Your task to perform on an android device: Clear the cart on walmart.com. Add "macbook pro" to the cart on walmart.com, then select checkout. Image 0: 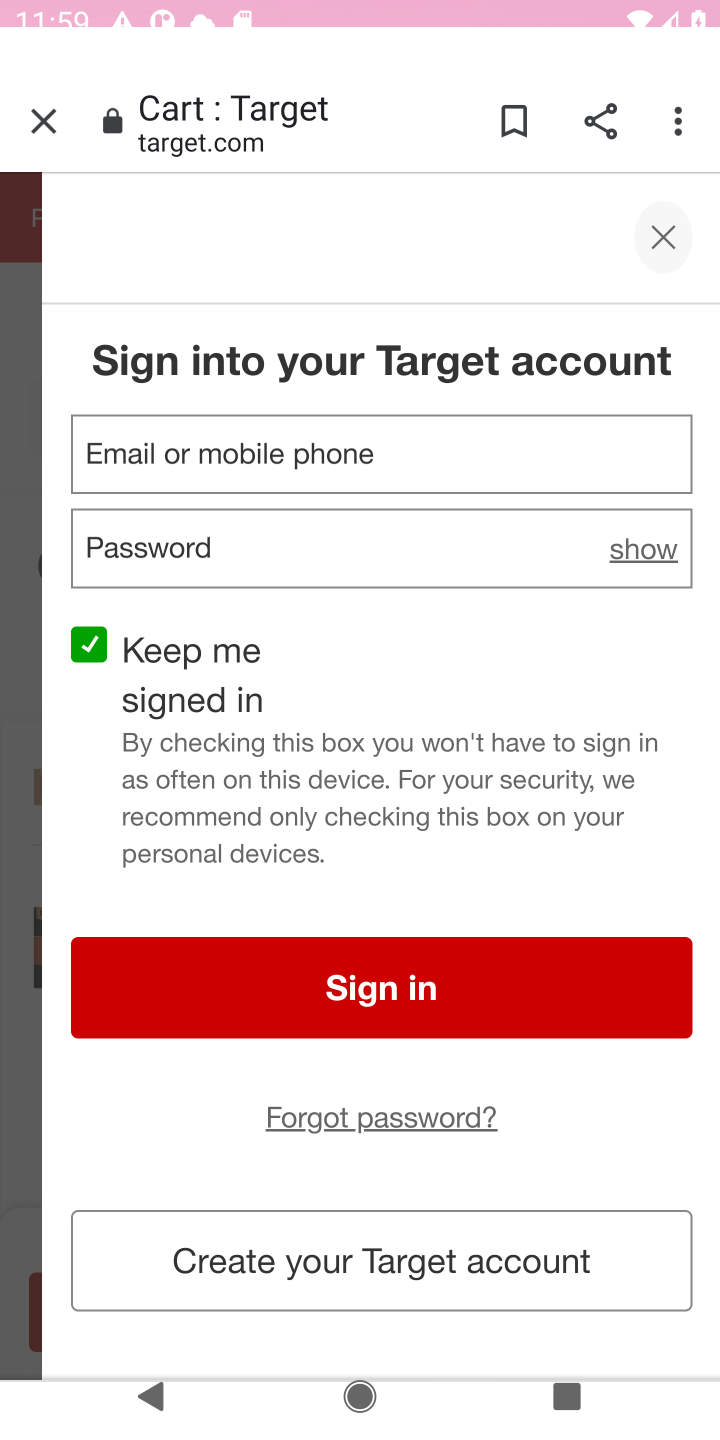
Step 0: press home button
Your task to perform on an android device: Clear the cart on walmart.com. Add "macbook pro" to the cart on walmart.com, then select checkout. Image 1: 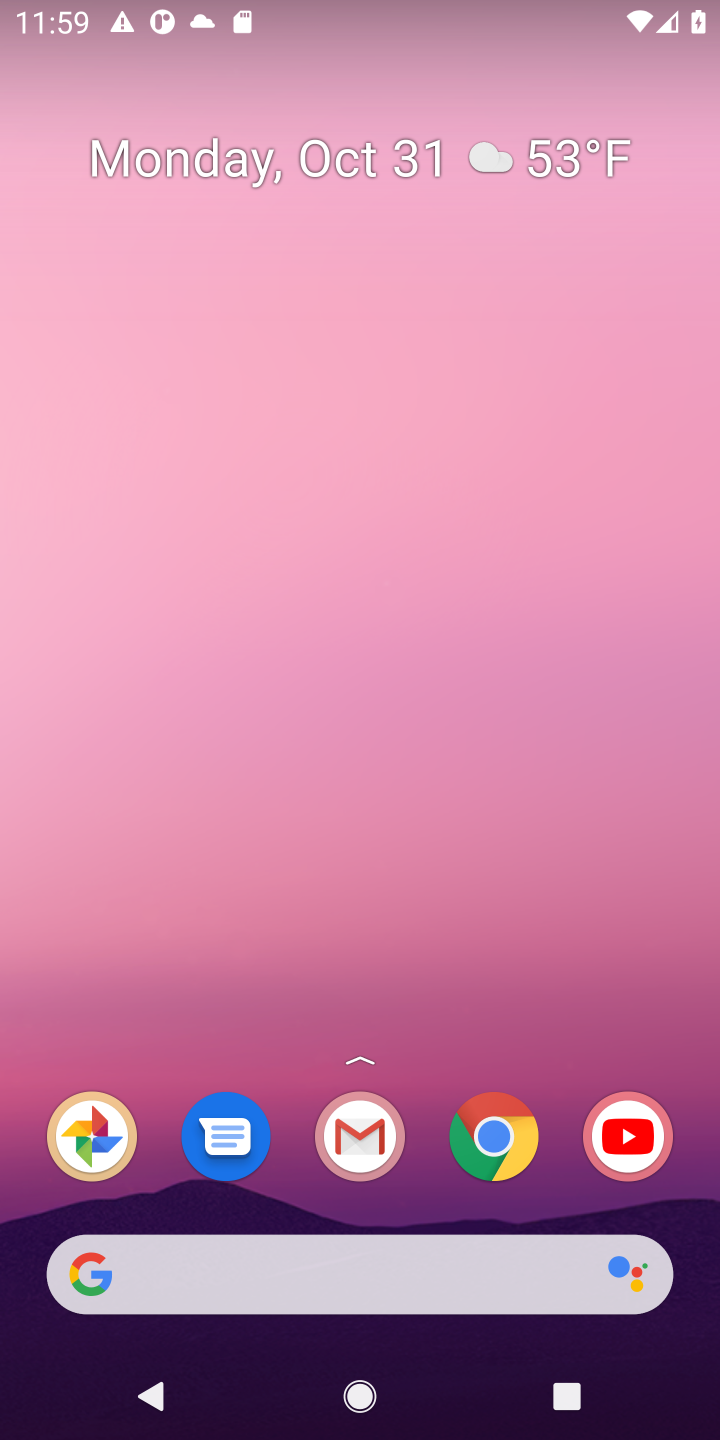
Step 1: press home button
Your task to perform on an android device: Clear the cart on walmart.com. Add "macbook pro" to the cart on walmart.com, then select checkout. Image 2: 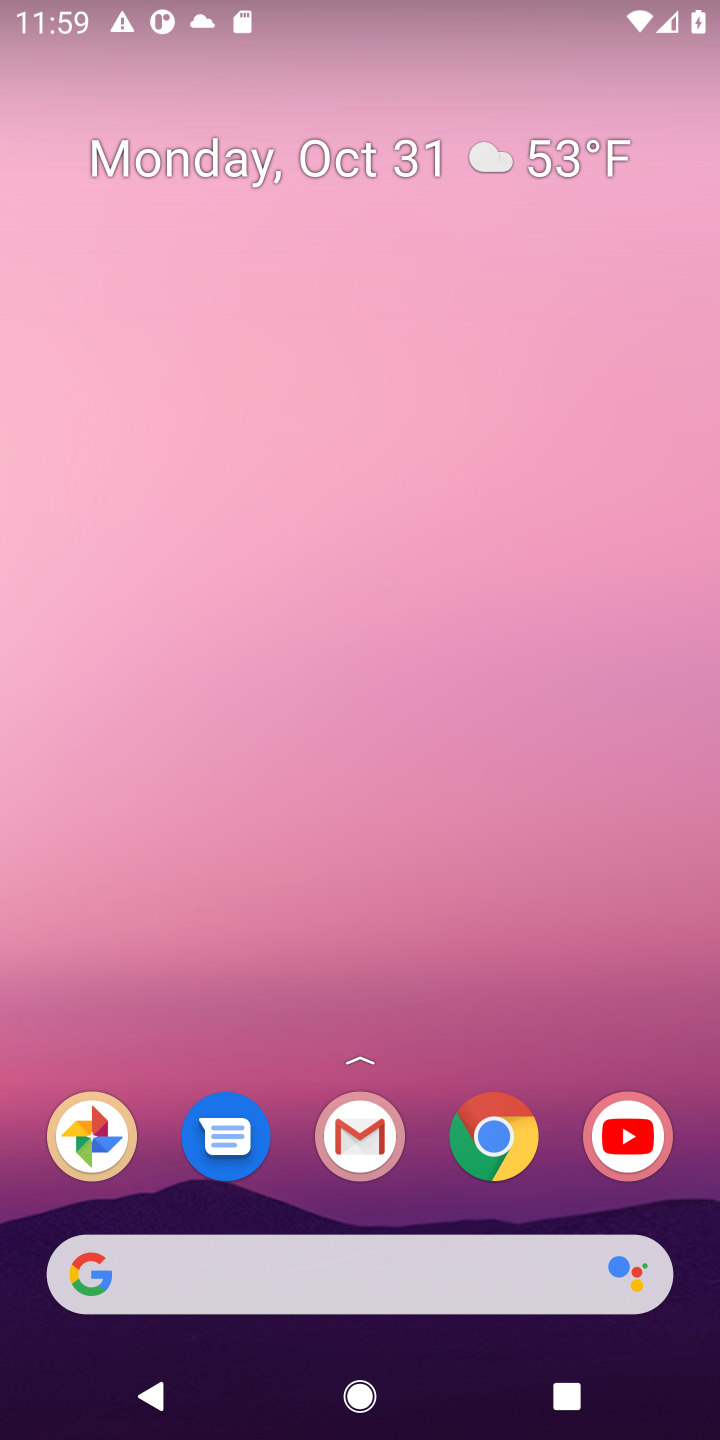
Step 2: click (202, 1268)
Your task to perform on an android device: Clear the cart on walmart.com. Add "macbook pro" to the cart on walmart.com, then select checkout. Image 3: 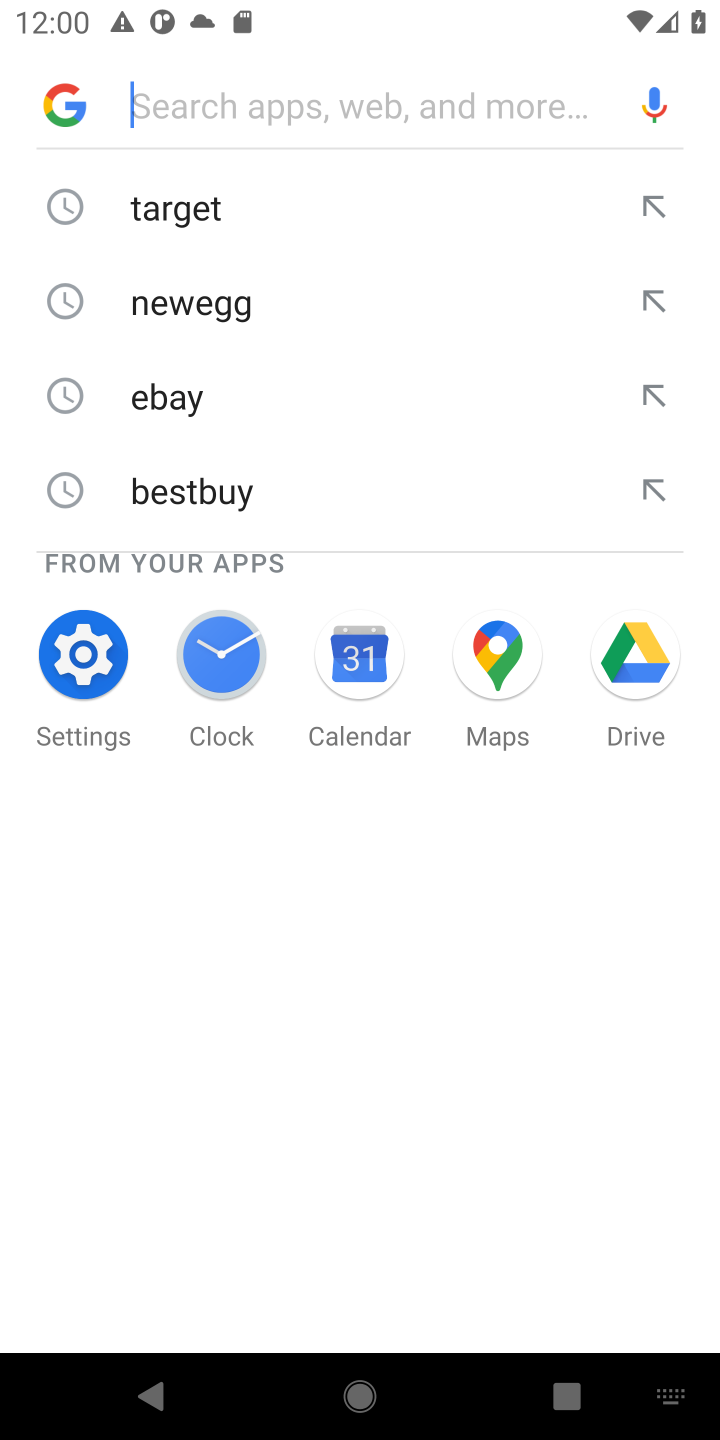
Step 3: type "walmart.com"
Your task to perform on an android device: Clear the cart on walmart.com. Add "macbook pro" to the cart on walmart.com, then select checkout. Image 4: 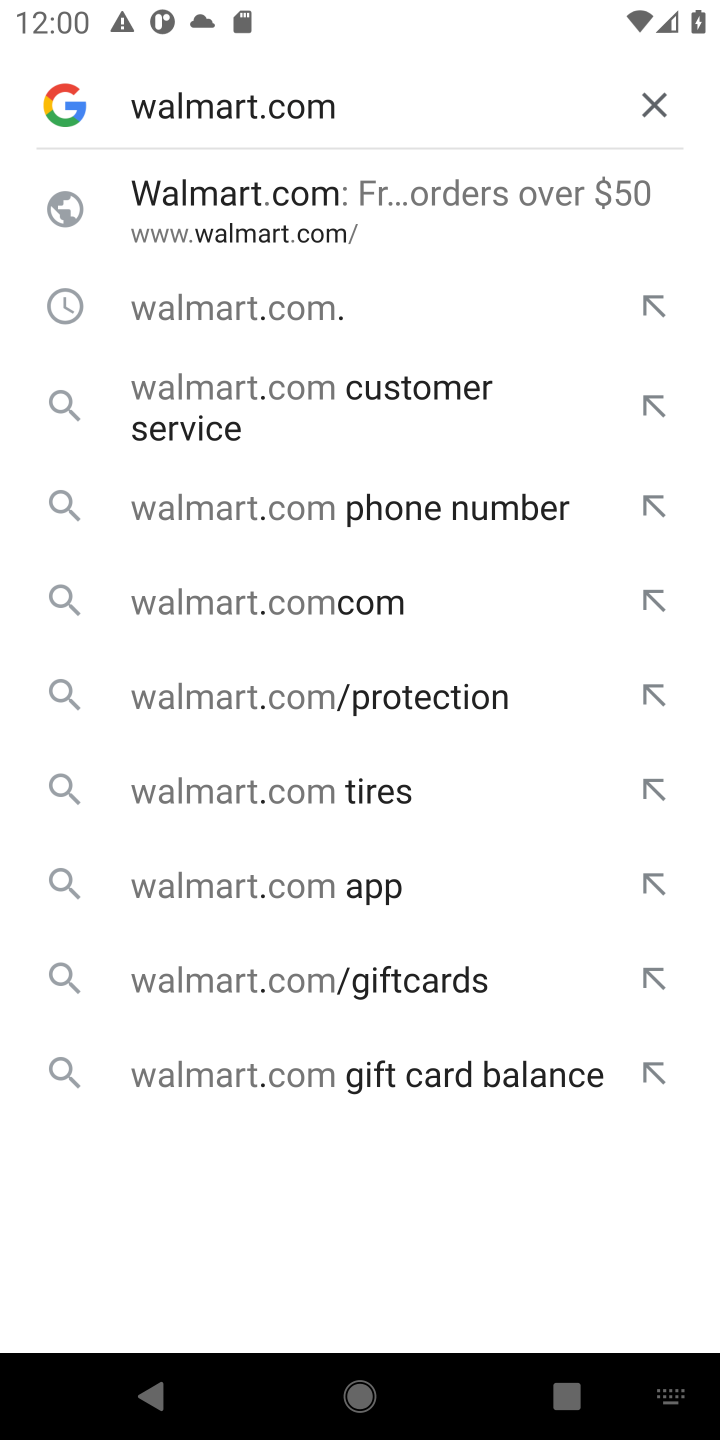
Step 4: press enter
Your task to perform on an android device: Clear the cart on walmart.com. Add "macbook pro" to the cart on walmart.com, then select checkout. Image 5: 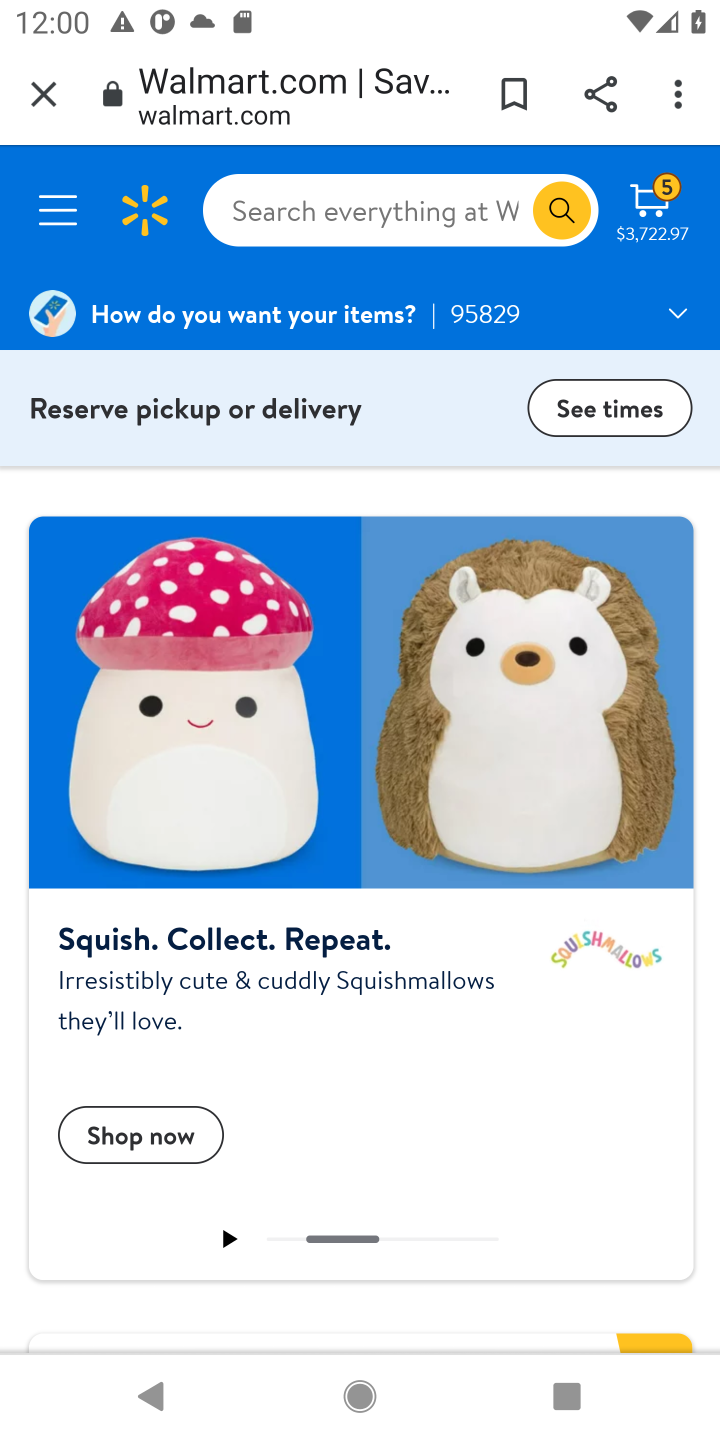
Step 5: click (644, 189)
Your task to perform on an android device: Clear the cart on walmart.com. Add "macbook pro" to the cart on walmart.com, then select checkout. Image 6: 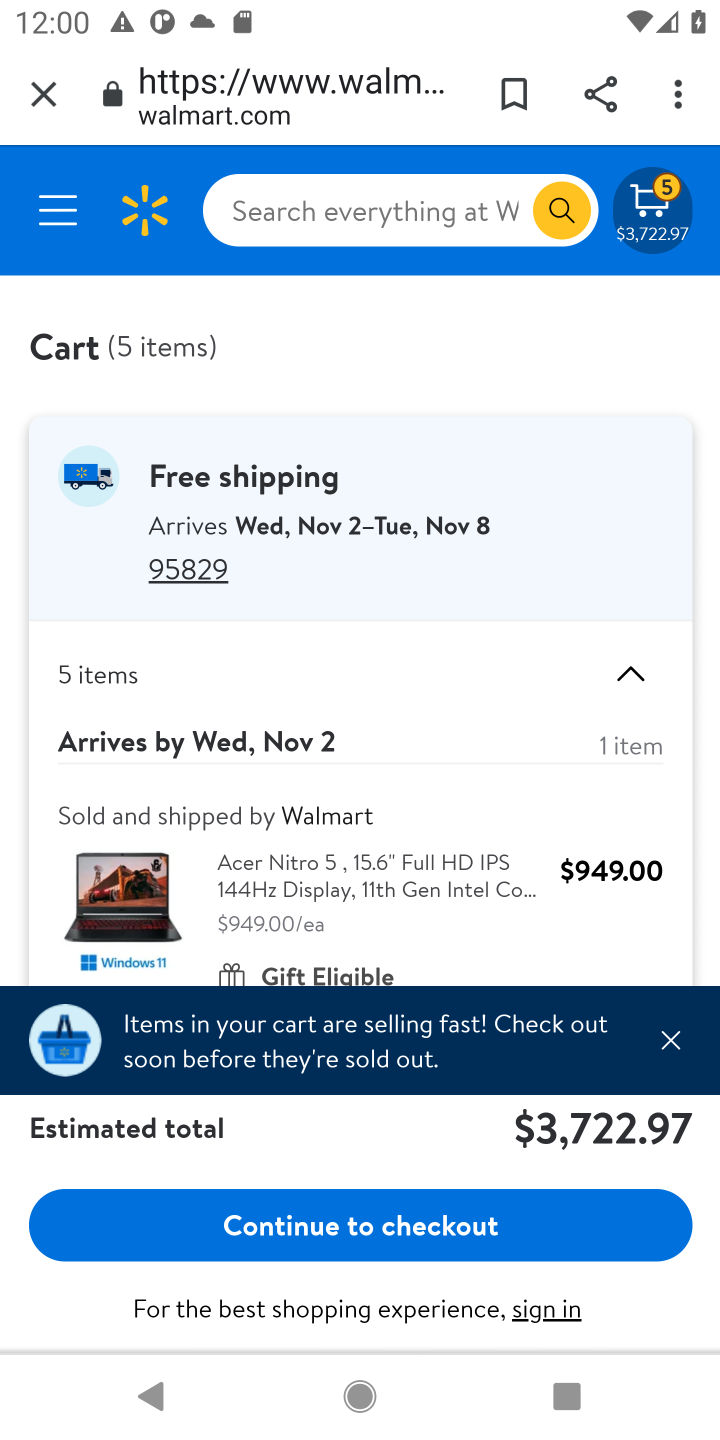
Step 6: click (668, 1046)
Your task to perform on an android device: Clear the cart on walmart.com. Add "macbook pro" to the cart on walmart.com, then select checkout. Image 7: 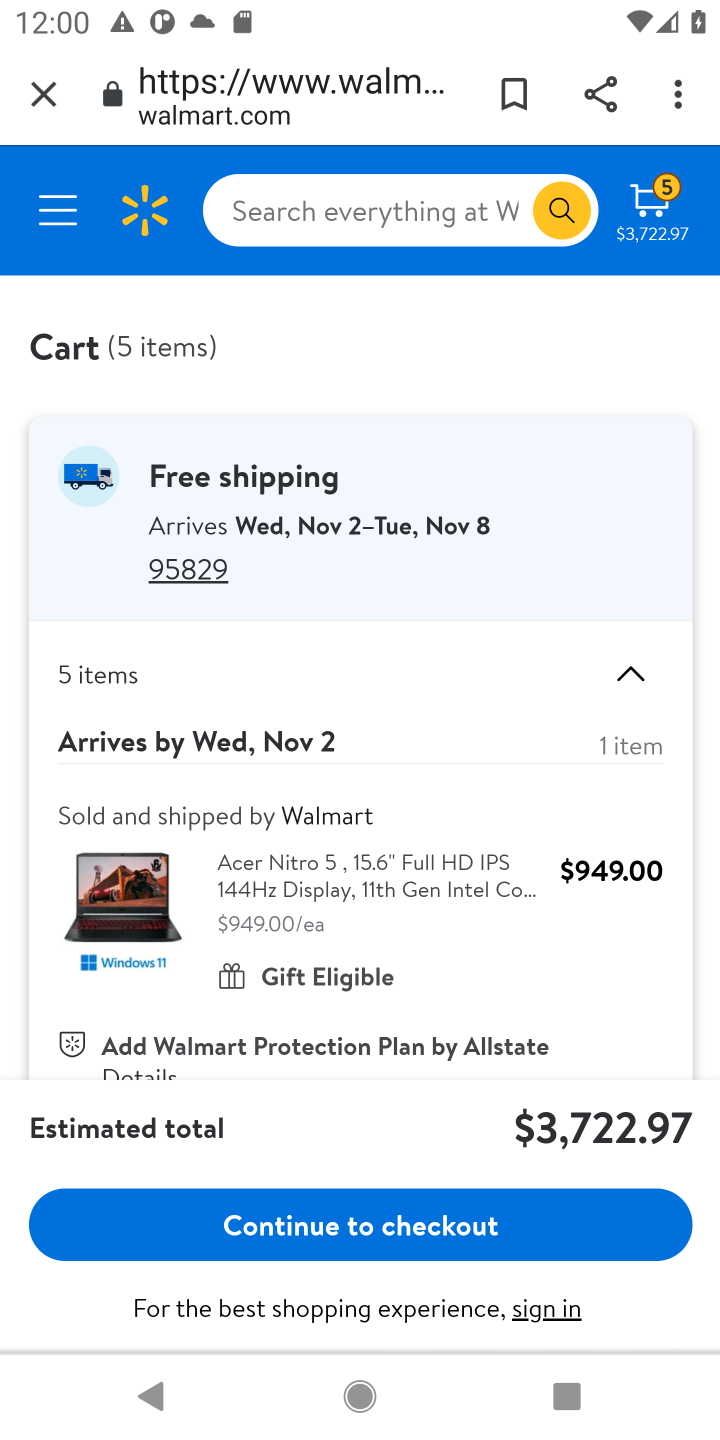
Step 7: drag from (277, 862) to (290, 537)
Your task to perform on an android device: Clear the cart on walmart.com. Add "macbook pro" to the cart on walmart.com, then select checkout. Image 8: 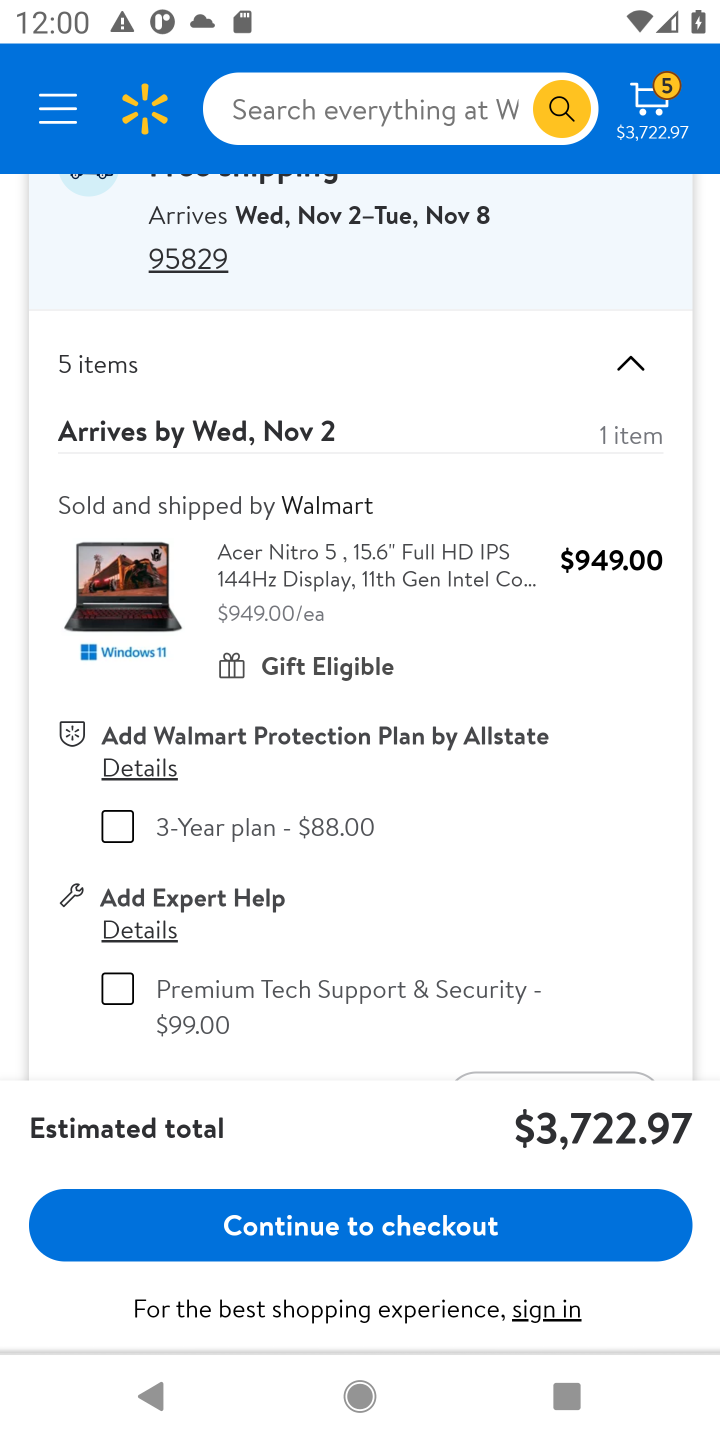
Step 8: drag from (302, 952) to (302, 531)
Your task to perform on an android device: Clear the cart on walmart.com. Add "macbook pro" to the cart on walmart.com, then select checkout. Image 9: 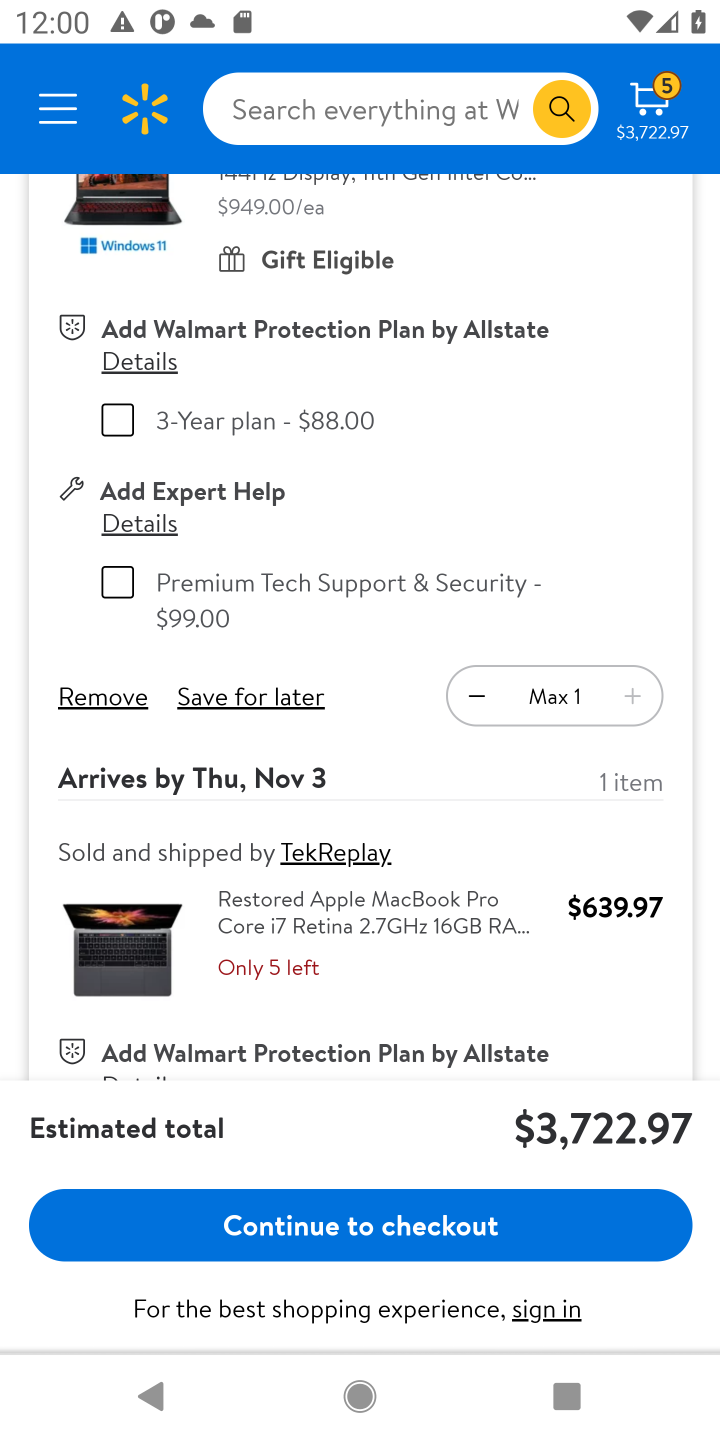
Step 9: click (83, 955)
Your task to perform on an android device: Clear the cart on walmart.com. Add "macbook pro" to the cart on walmart.com, then select checkout. Image 10: 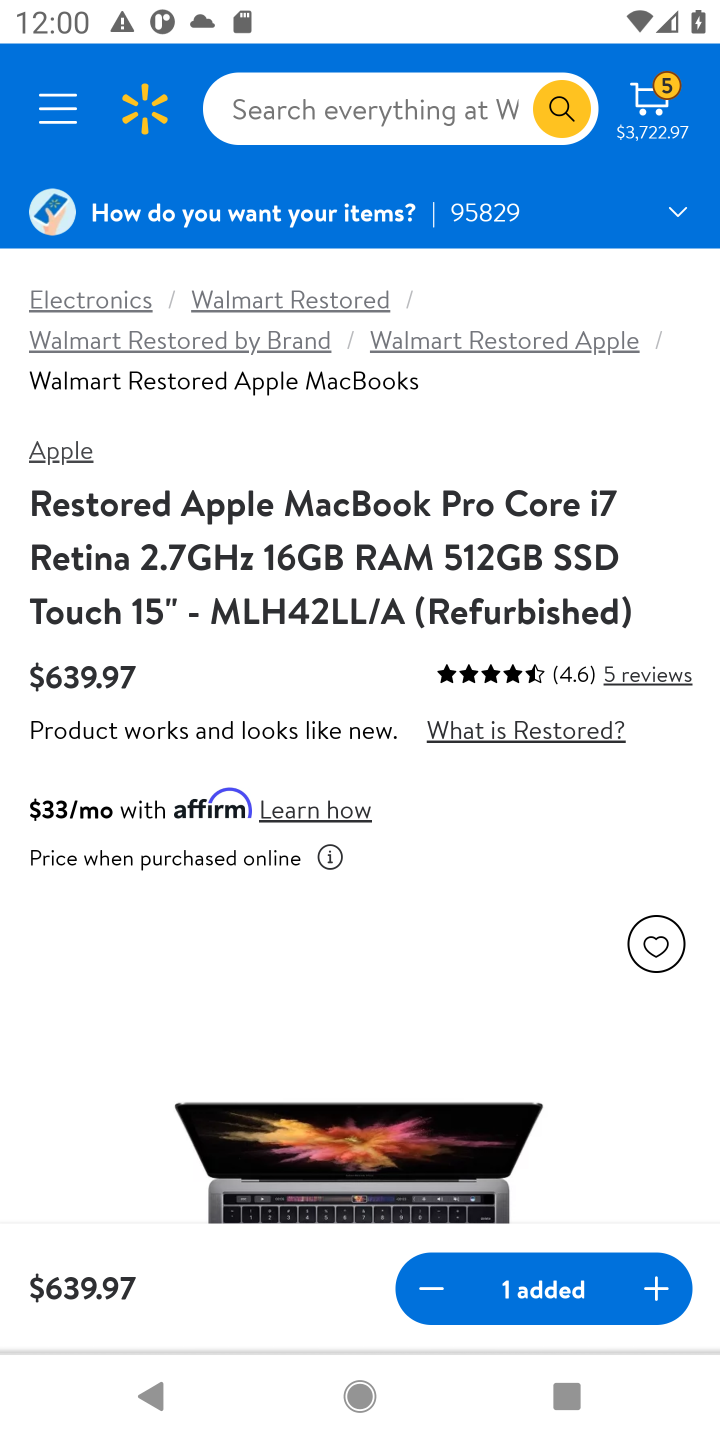
Step 10: press back button
Your task to perform on an android device: Clear the cart on walmart.com. Add "macbook pro" to the cart on walmart.com, then select checkout. Image 11: 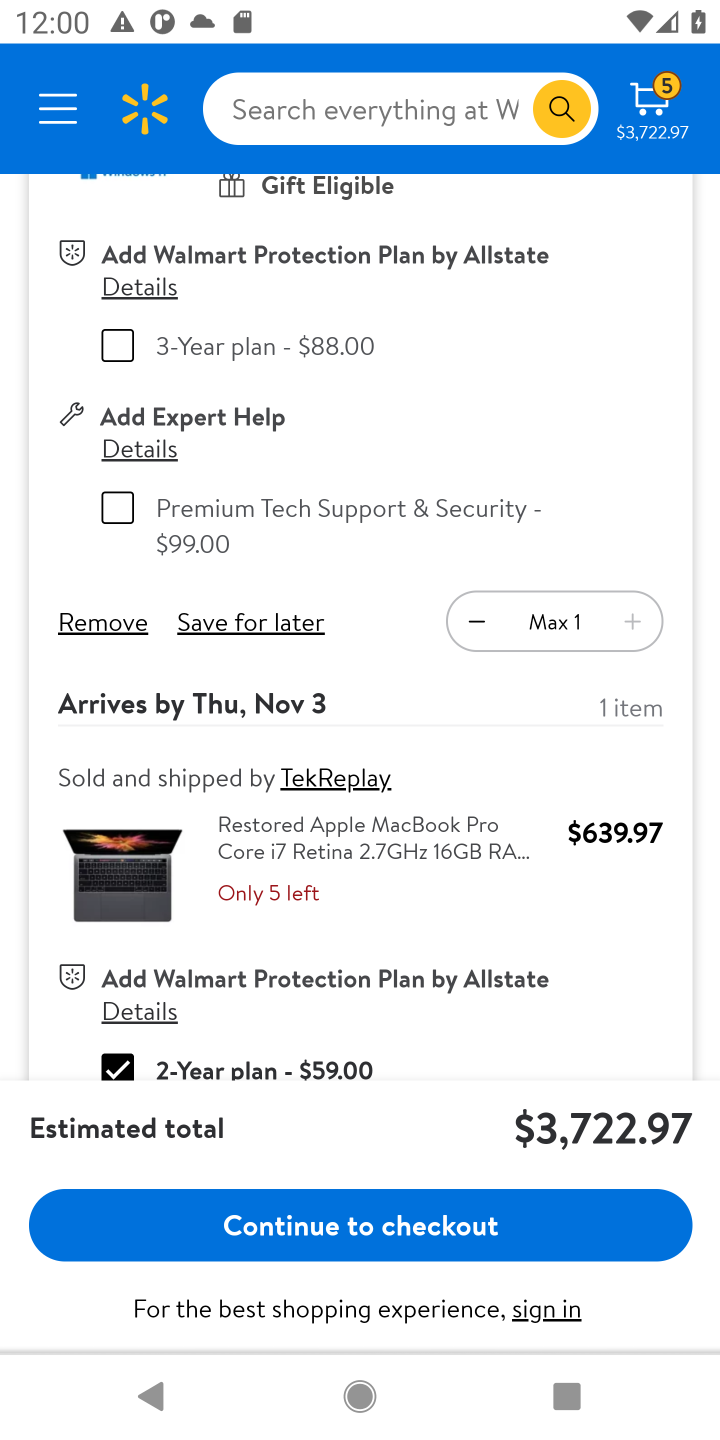
Step 11: click (88, 626)
Your task to perform on an android device: Clear the cart on walmart.com. Add "macbook pro" to the cart on walmart.com, then select checkout. Image 12: 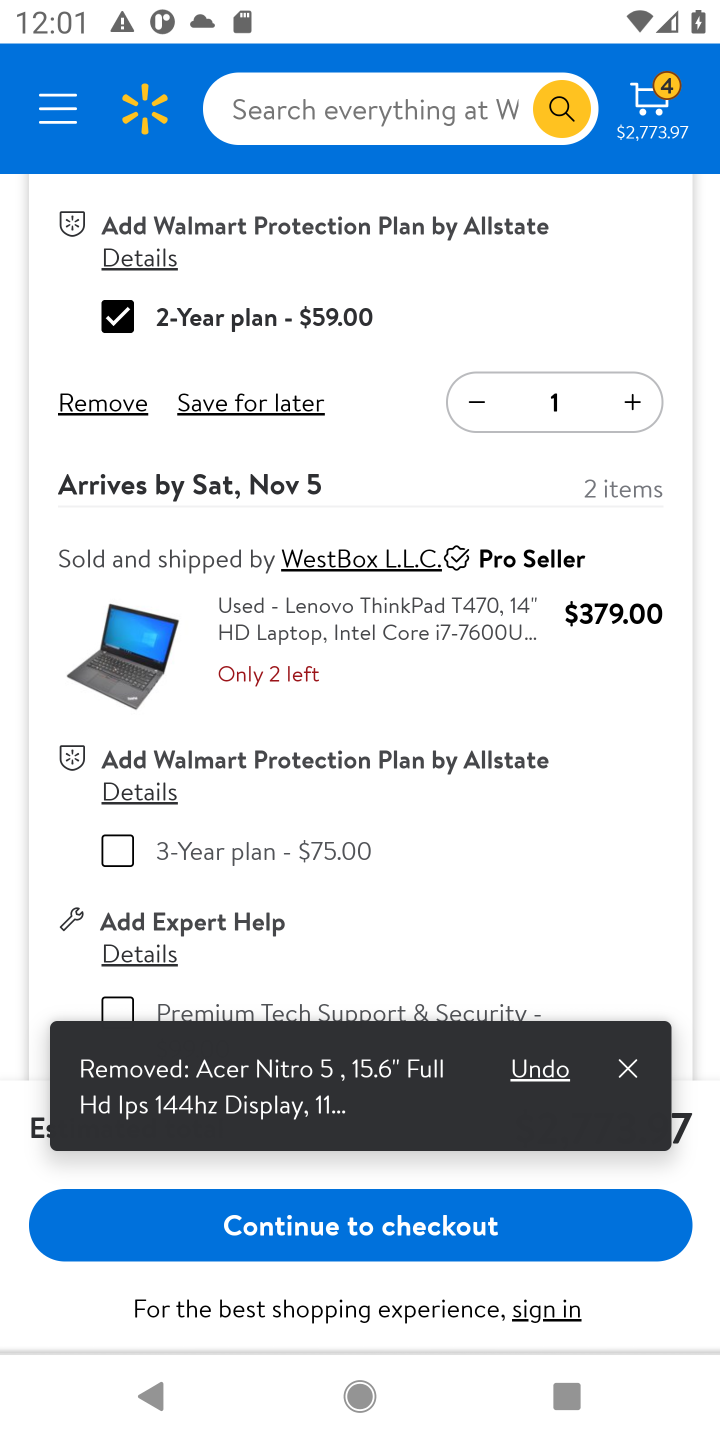
Step 12: click (102, 393)
Your task to perform on an android device: Clear the cart on walmart.com. Add "macbook pro" to the cart on walmart.com, then select checkout. Image 13: 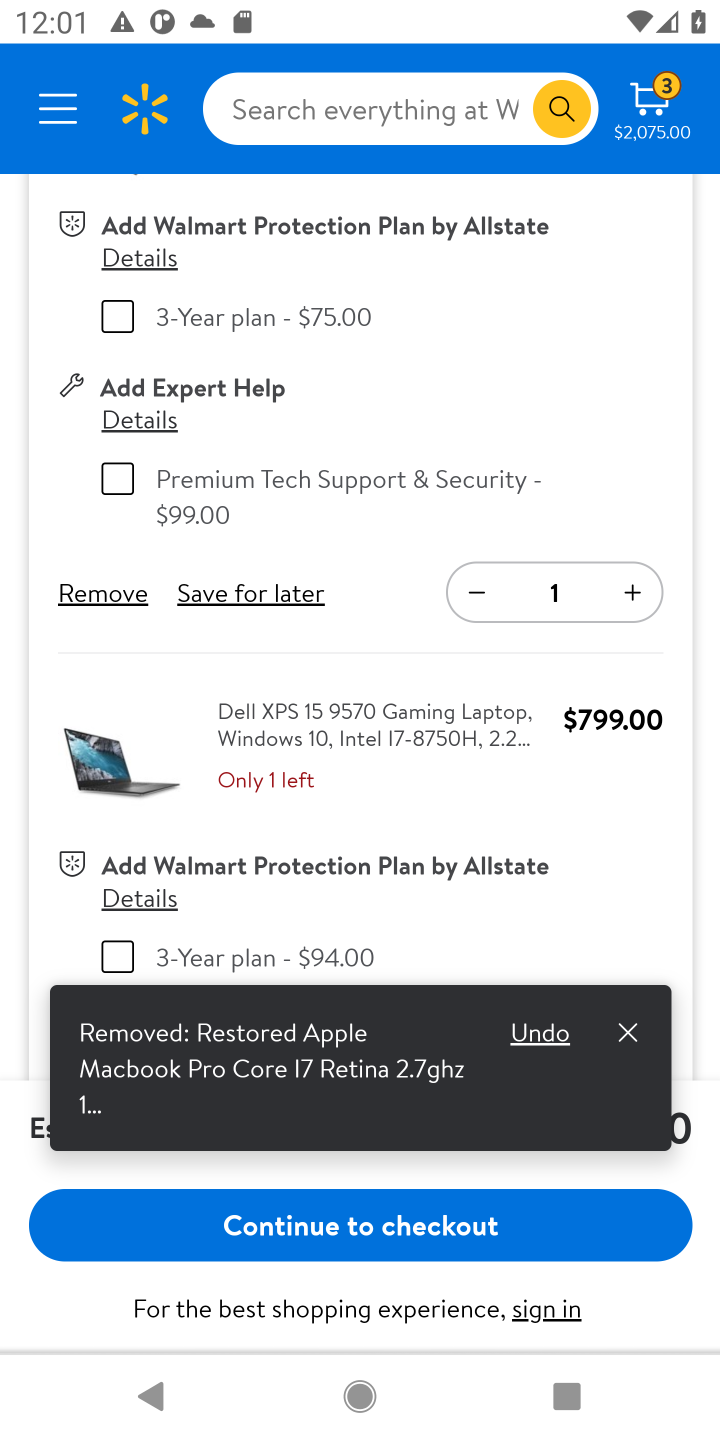
Step 13: click (81, 596)
Your task to perform on an android device: Clear the cart on walmart.com. Add "macbook pro" to the cart on walmart.com, then select checkout. Image 14: 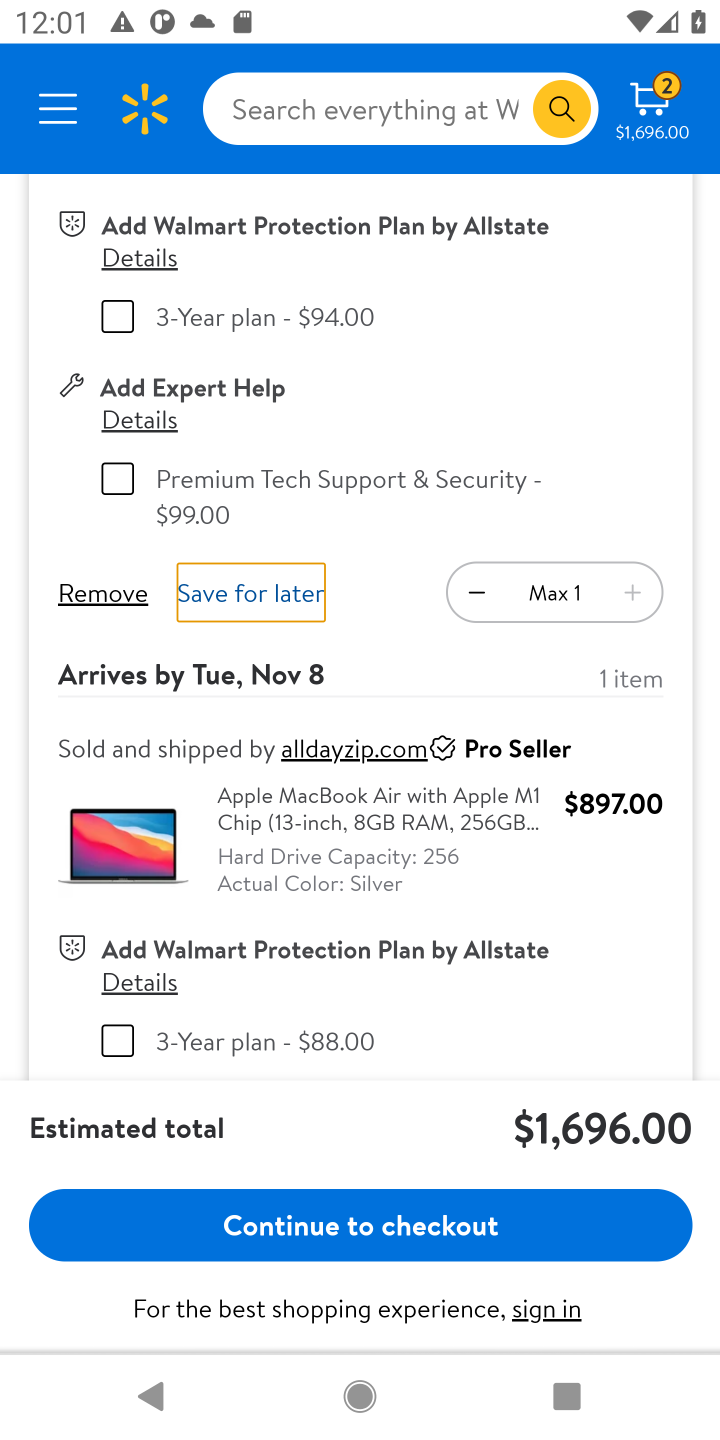
Step 14: click (81, 596)
Your task to perform on an android device: Clear the cart on walmart.com. Add "macbook pro" to the cart on walmart.com, then select checkout. Image 15: 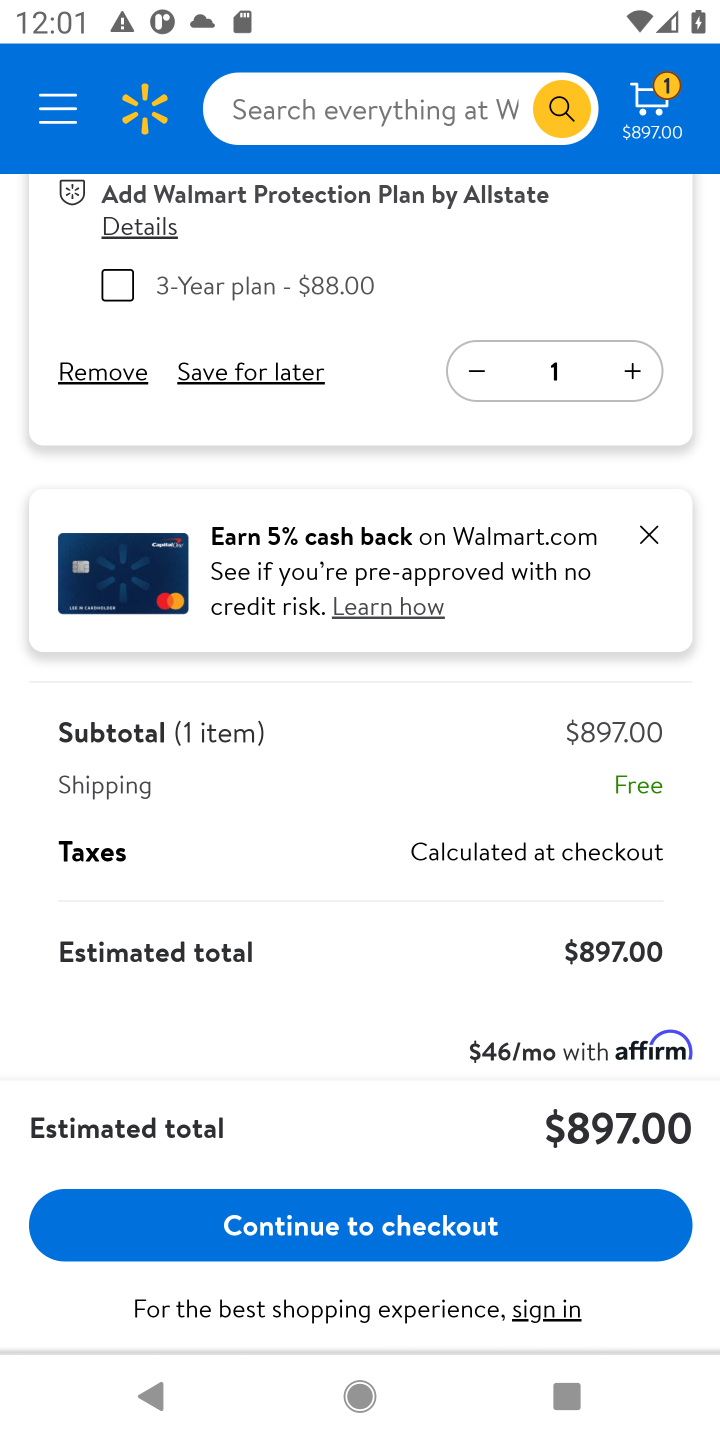
Step 15: click (80, 364)
Your task to perform on an android device: Clear the cart on walmart.com. Add "macbook pro" to the cart on walmart.com, then select checkout. Image 16: 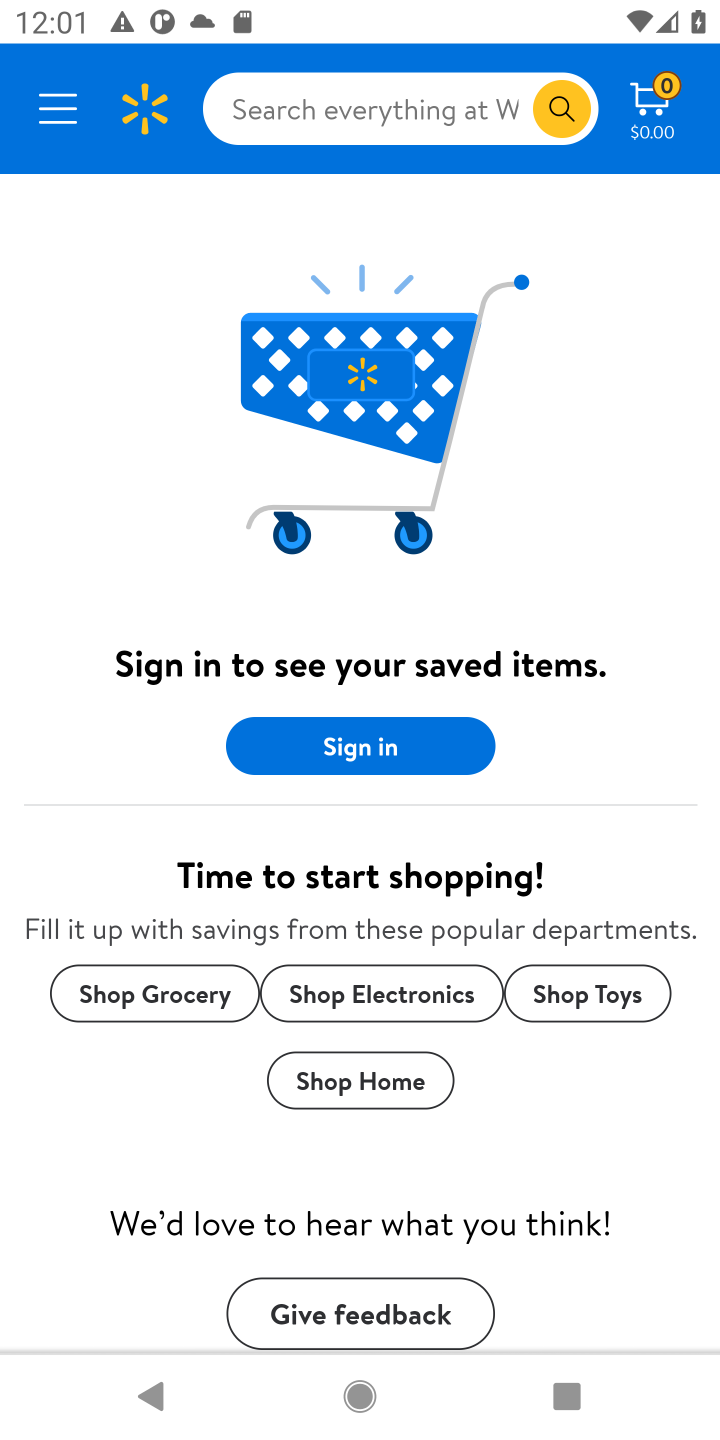
Step 16: click (352, 104)
Your task to perform on an android device: Clear the cart on walmart.com. Add "macbook pro" to the cart on walmart.com, then select checkout. Image 17: 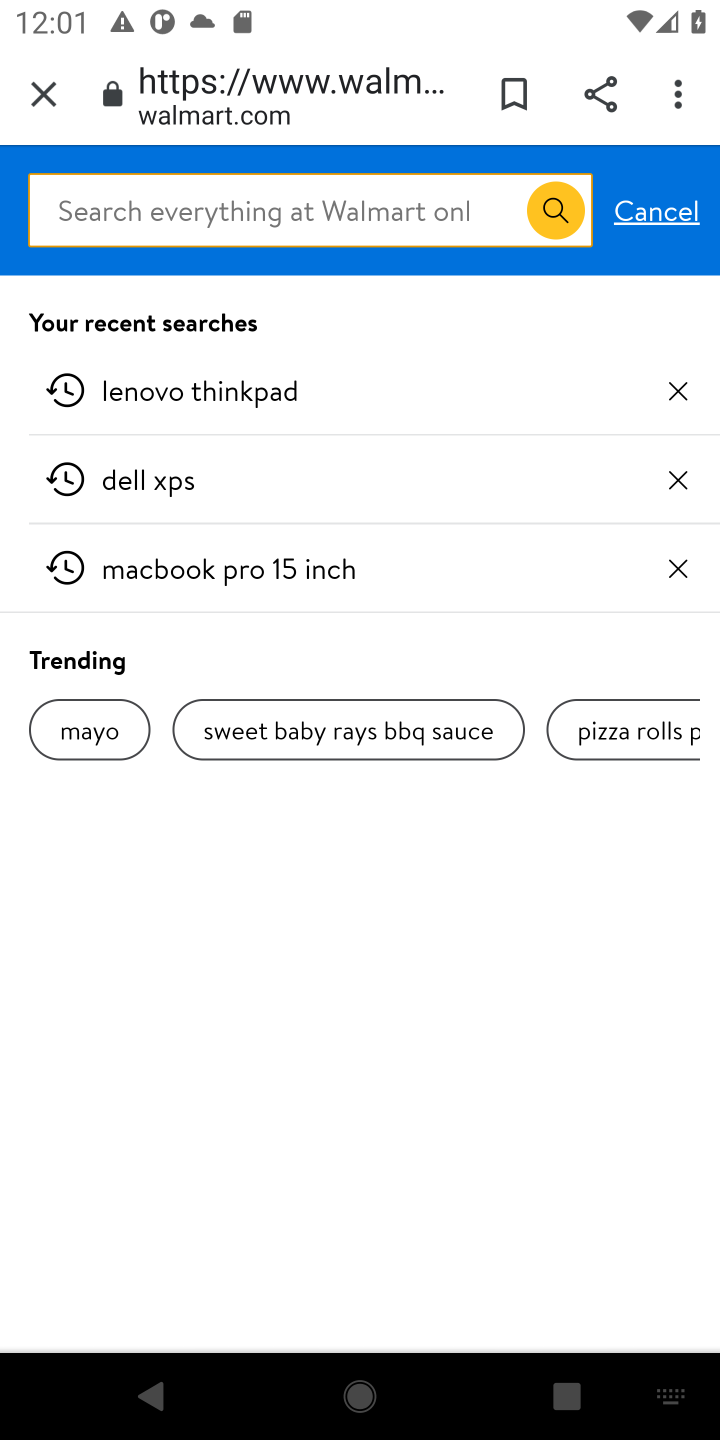
Step 17: type "macbook pro"
Your task to perform on an android device: Clear the cart on walmart.com. Add "macbook pro" to the cart on walmart.com, then select checkout. Image 18: 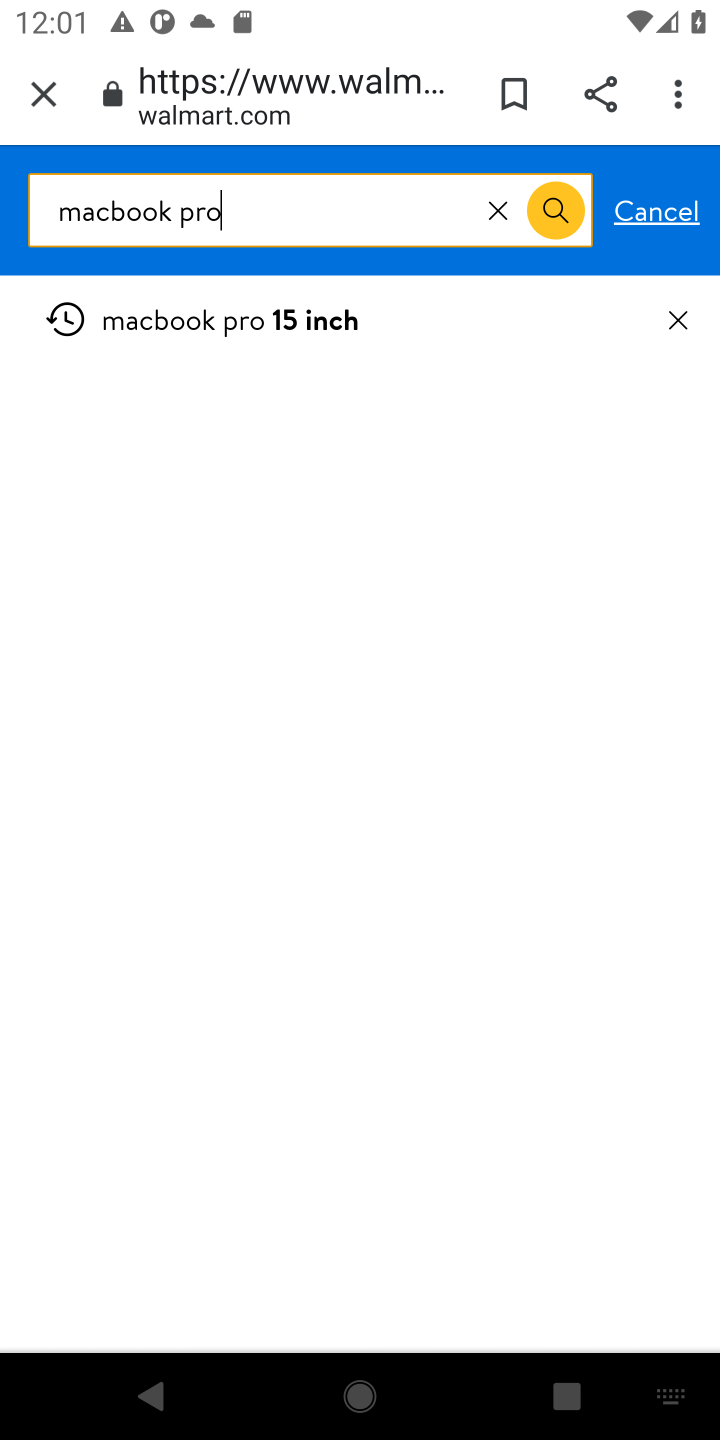
Step 18: press enter
Your task to perform on an android device: Clear the cart on walmart.com. Add "macbook pro" to the cart on walmart.com, then select checkout. Image 19: 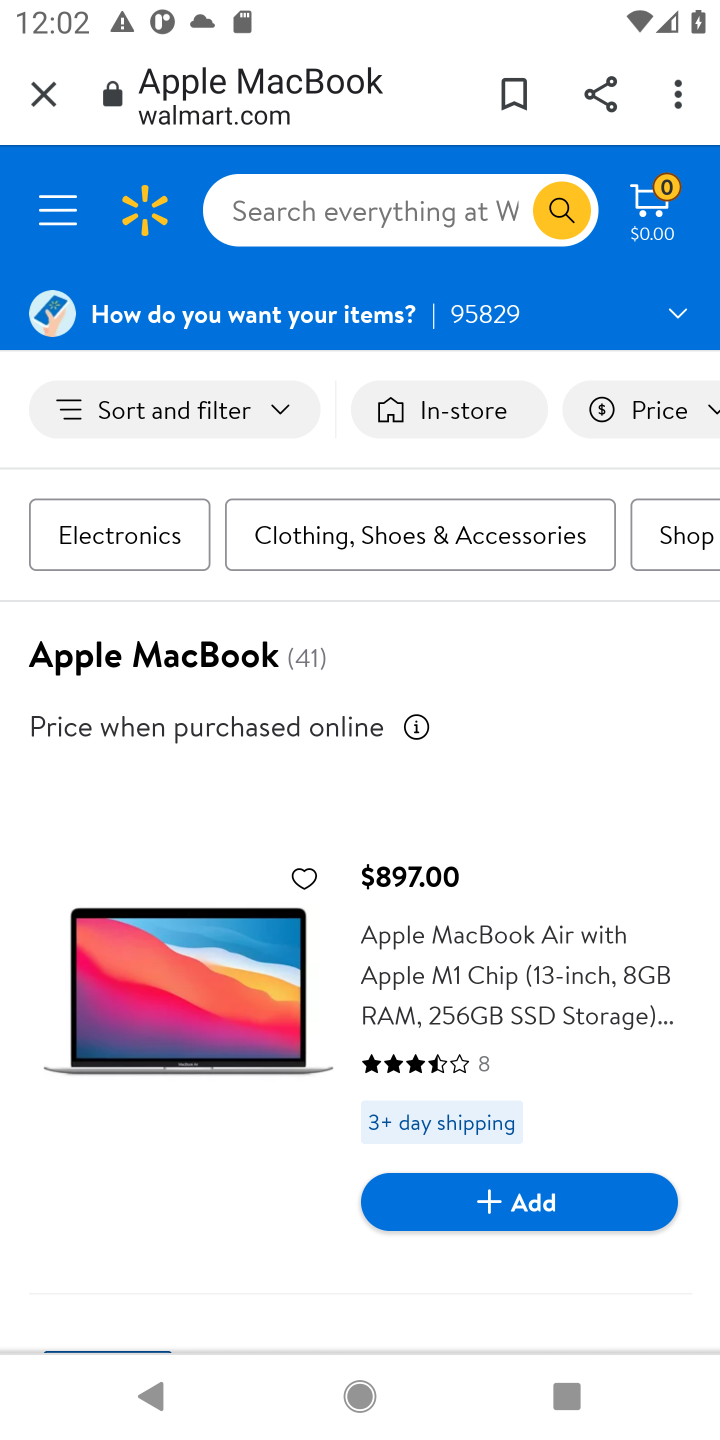
Step 19: click (553, 1207)
Your task to perform on an android device: Clear the cart on walmart.com. Add "macbook pro" to the cart on walmart.com, then select checkout. Image 20: 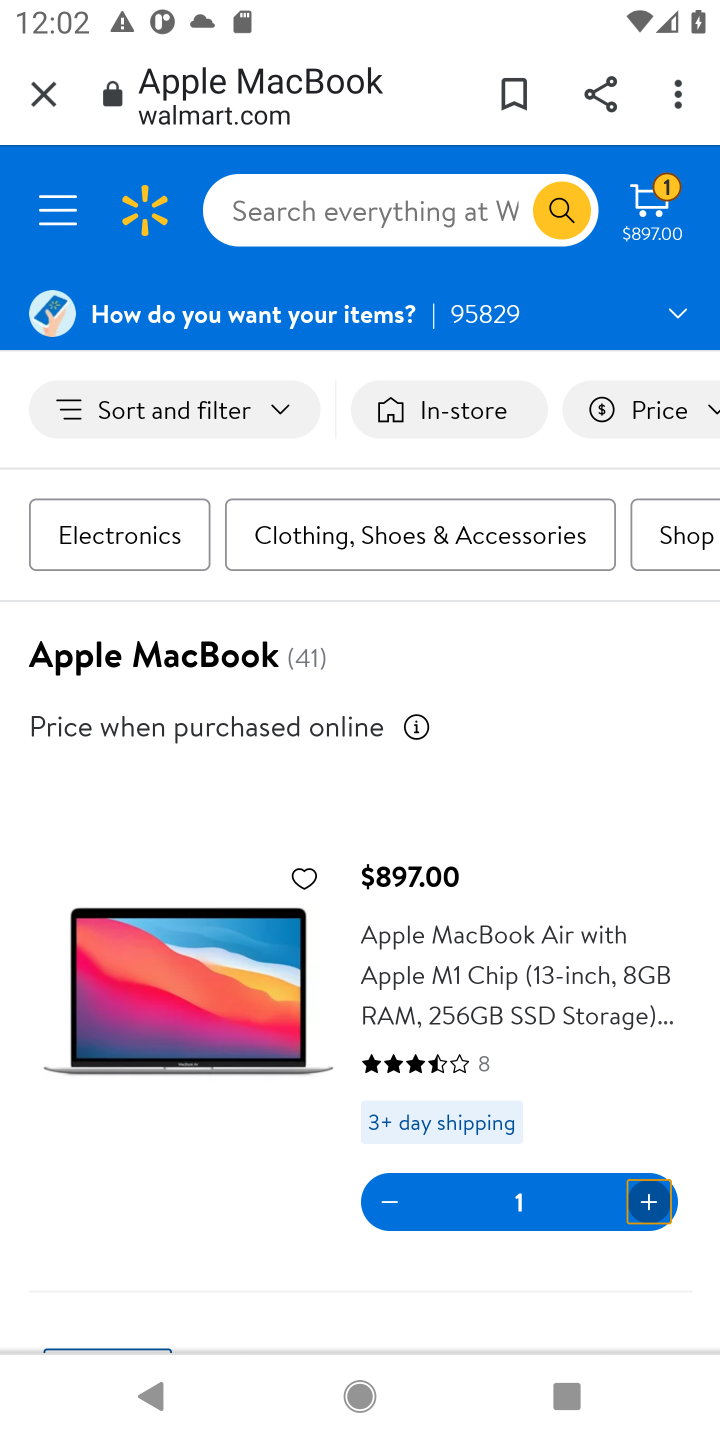
Step 20: click (653, 212)
Your task to perform on an android device: Clear the cart on walmart.com. Add "macbook pro" to the cart on walmart.com, then select checkout. Image 21: 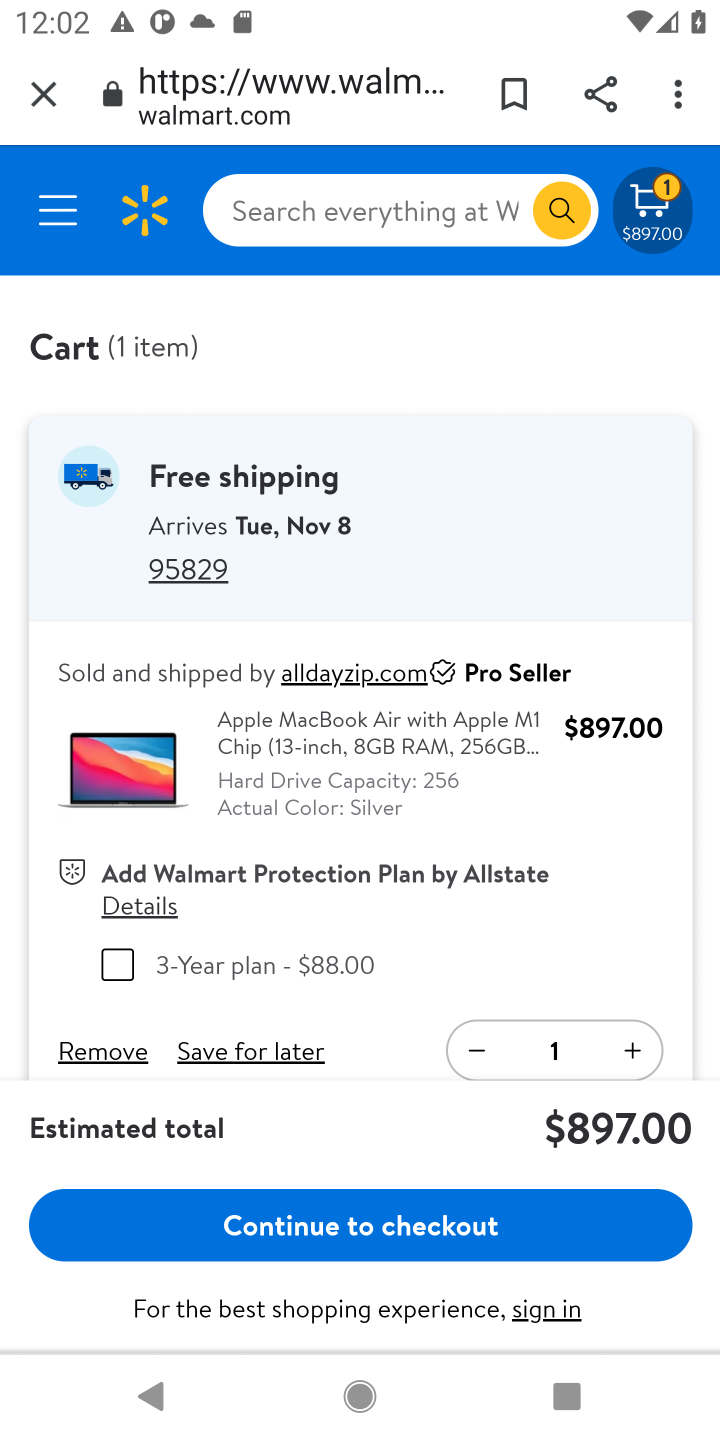
Step 21: click (309, 1229)
Your task to perform on an android device: Clear the cart on walmart.com. Add "macbook pro" to the cart on walmart.com, then select checkout. Image 22: 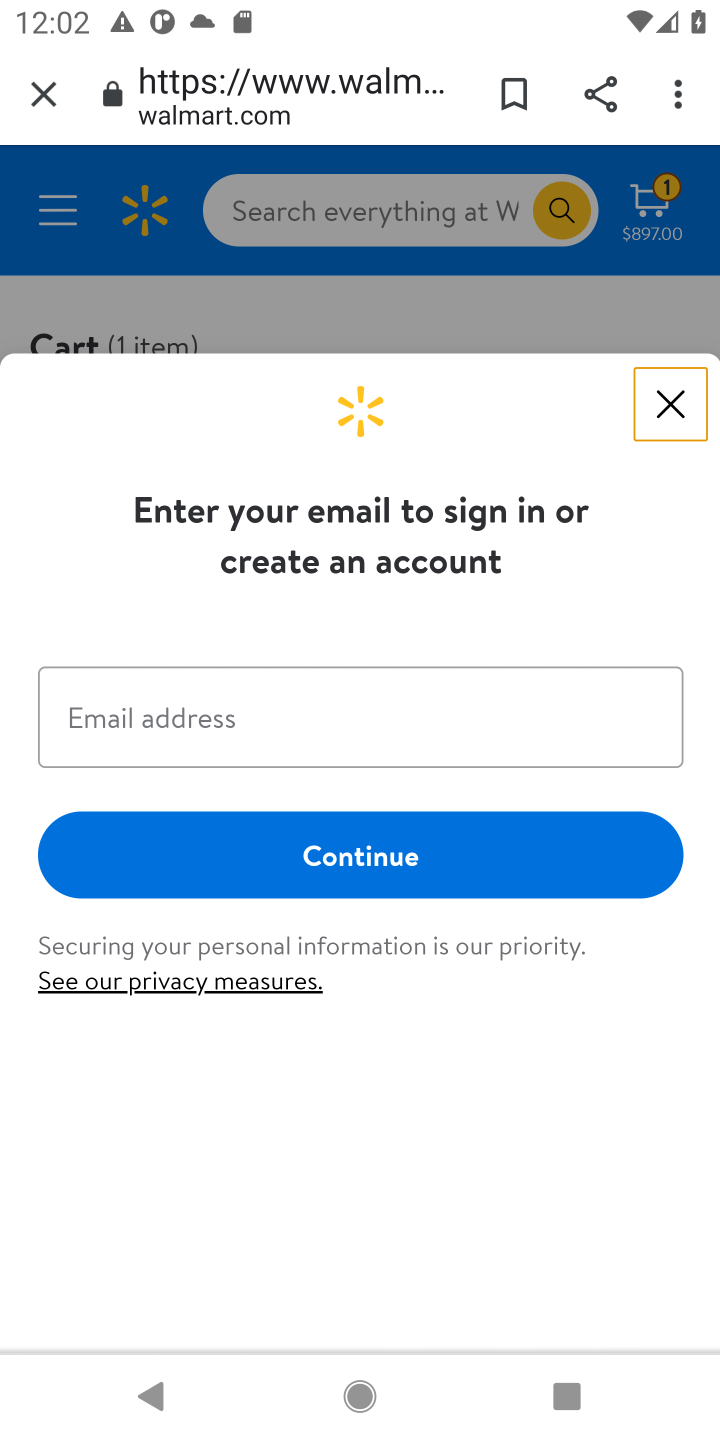
Step 22: task complete